Your task to perform on an android device: Open network settings Image 0: 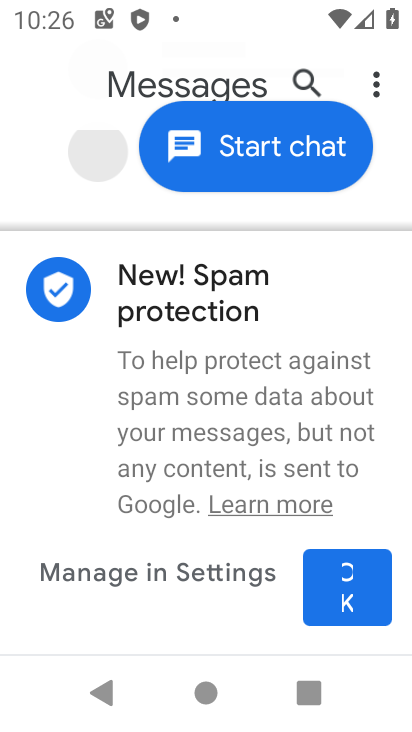
Step 0: press home button
Your task to perform on an android device: Open network settings Image 1: 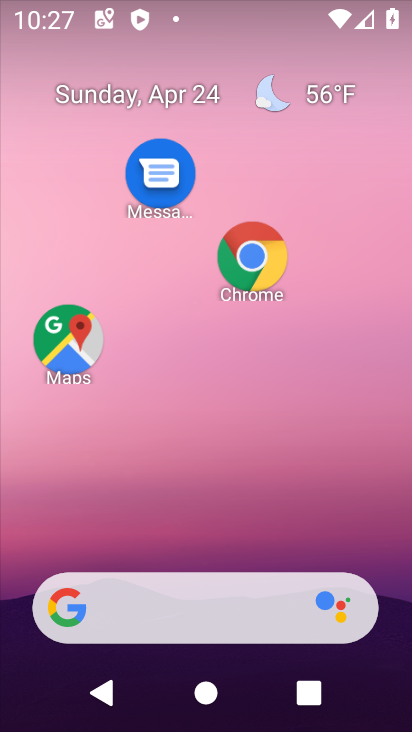
Step 1: drag from (221, 720) to (192, 172)
Your task to perform on an android device: Open network settings Image 2: 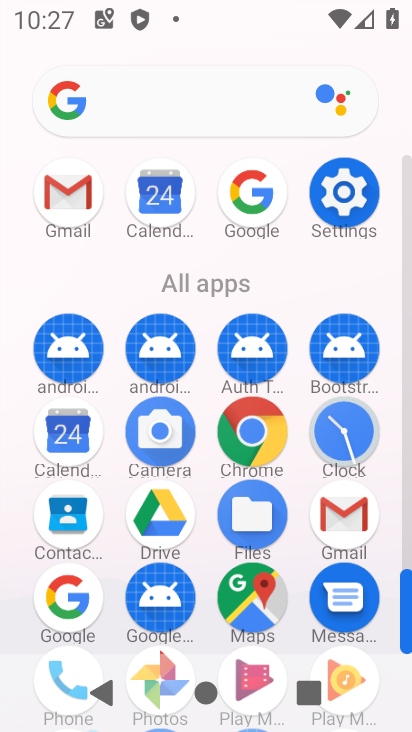
Step 2: click (348, 189)
Your task to perform on an android device: Open network settings Image 3: 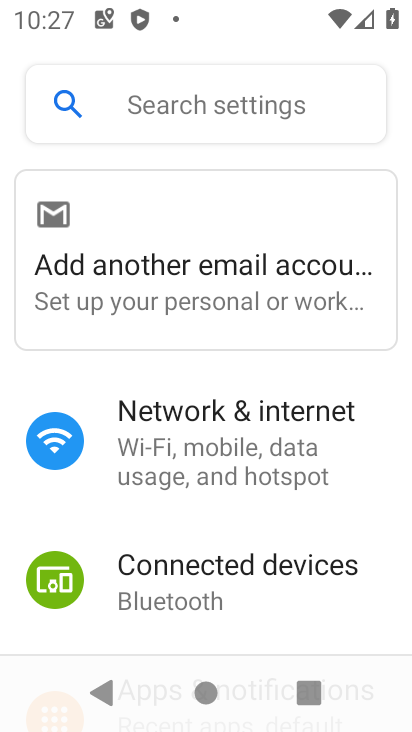
Step 3: click (205, 440)
Your task to perform on an android device: Open network settings Image 4: 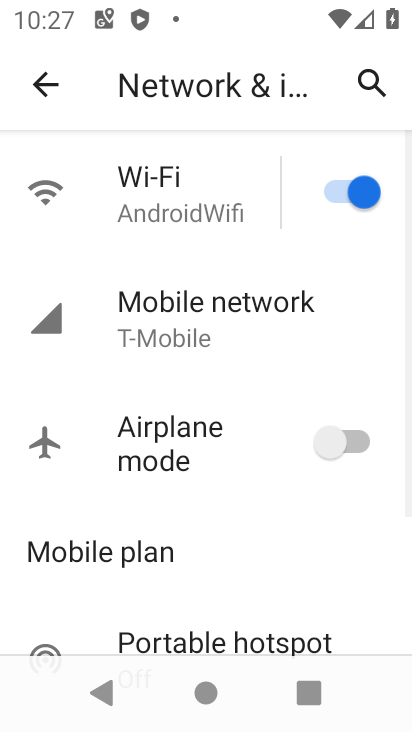
Step 4: task complete